Your task to perform on an android device: toggle priority inbox in the gmail app Image 0: 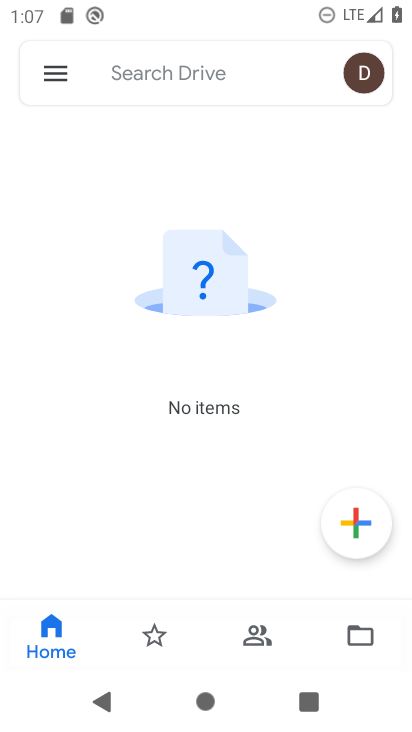
Step 0: press home button
Your task to perform on an android device: toggle priority inbox in the gmail app Image 1: 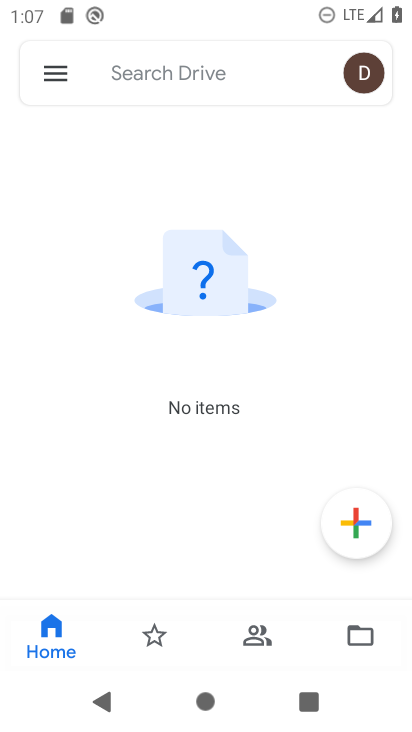
Step 1: press home button
Your task to perform on an android device: toggle priority inbox in the gmail app Image 2: 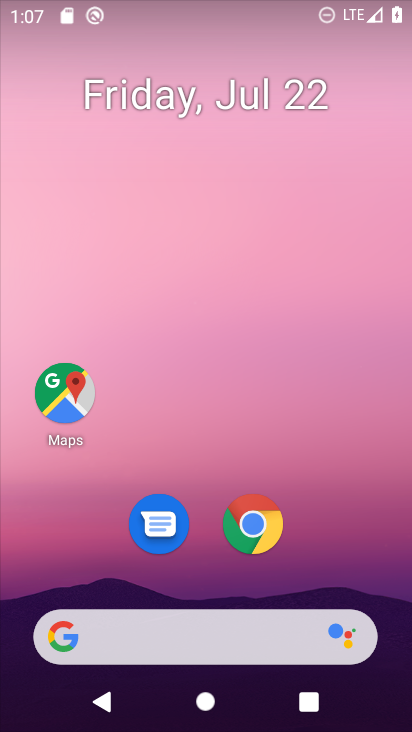
Step 2: drag from (320, 551) to (323, 97)
Your task to perform on an android device: toggle priority inbox in the gmail app Image 3: 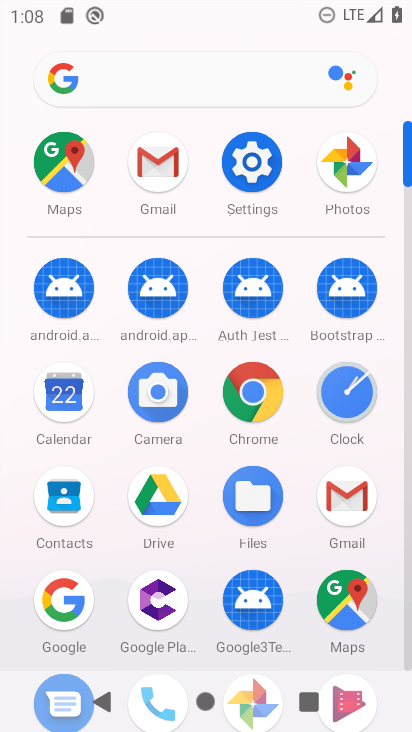
Step 3: click (165, 168)
Your task to perform on an android device: toggle priority inbox in the gmail app Image 4: 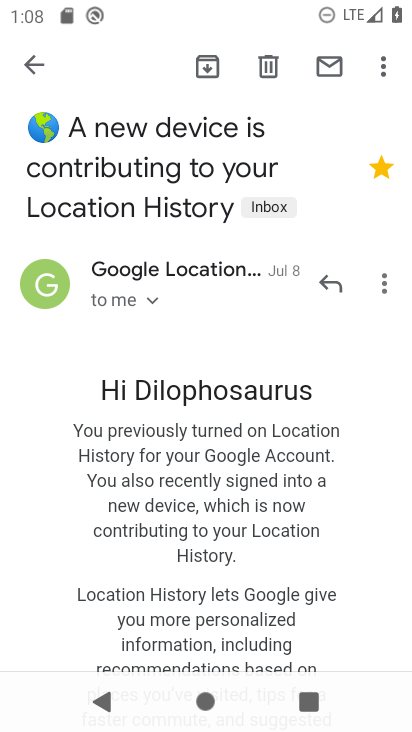
Step 4: click (42, 62)
Your task to perform on an android device: toggle priority inbox in the gmail app Image 5: 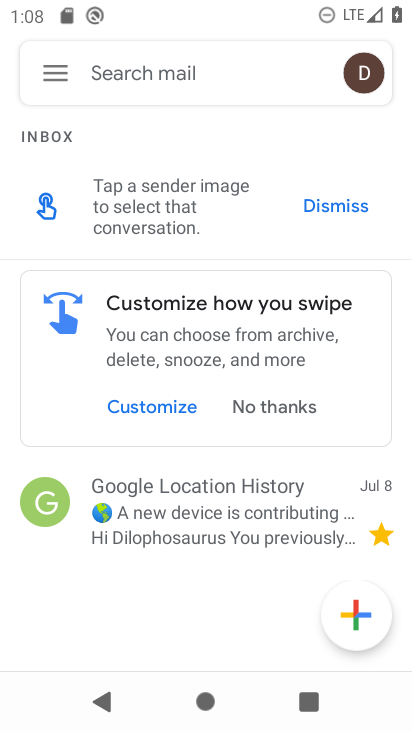
Step 5: click (59, 75)
Your task to perform on an android device: toggle priority inbox in the gmail app Image 6: 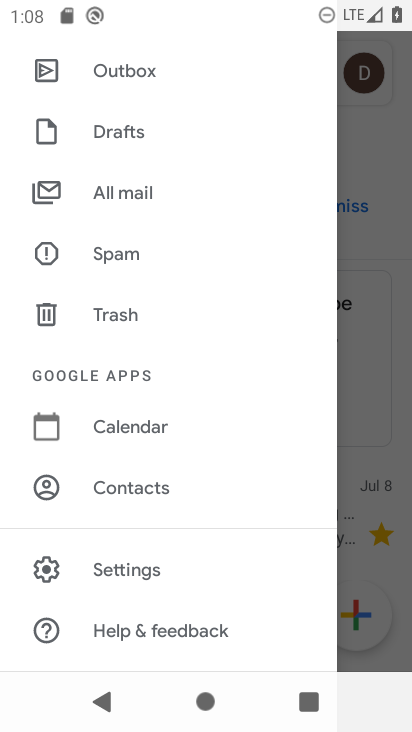
Step 6: click (133, 559)
Your task to perform on an android device: toggle priority inbox in the gmail app Image 7: 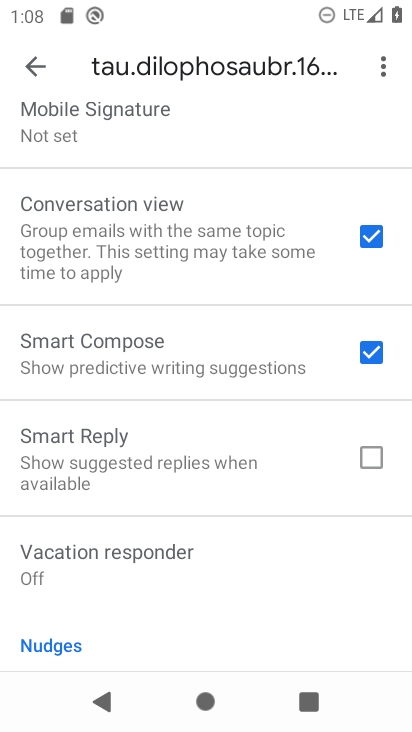
Step 7: drag from (243, 138) to (194, 629)
Your task to perform on an android device: toggle priority inbox in the gmail app Image 8: 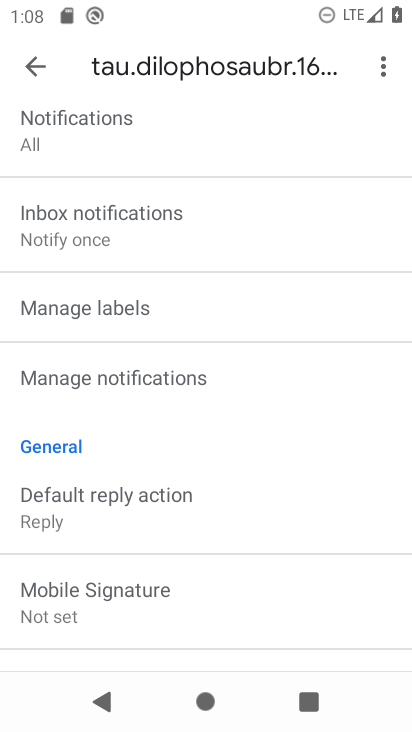
Step 8: drag from (235, 145) to (204, 661)
Your task to perform on an android device: toggle priority inbox in the gmail app Image 9: 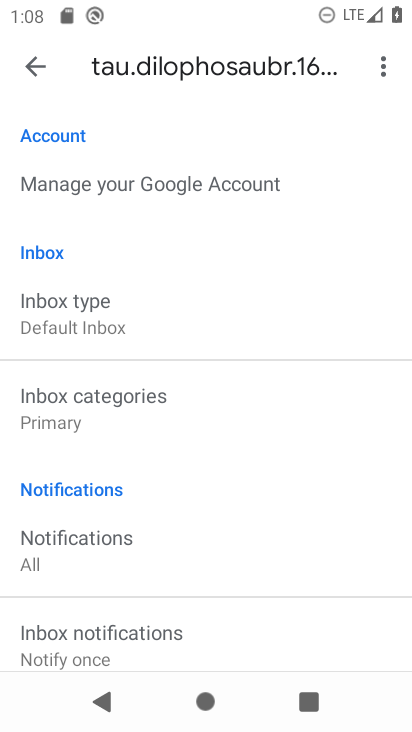
Step 9: click (98, 302)
Your task to perform on an android device: toggle priority inbox in the gmail app Image 10: 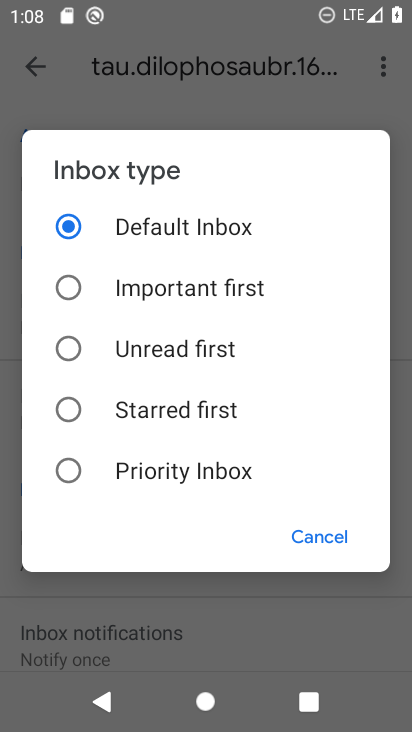
Step 10: click (62, 469)
Your task to perform on an android device: toggle priority inbox in the gmail app Image 11: 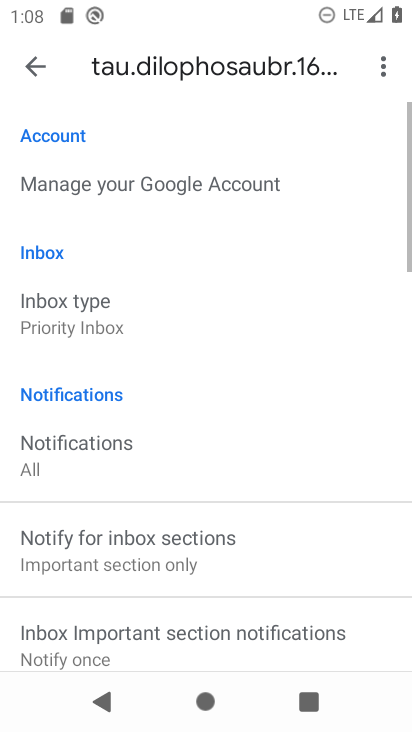
Step 11: task complete